Your task to perform on an android device: uninstall "Flipkart Online Shopping App" Image 0: 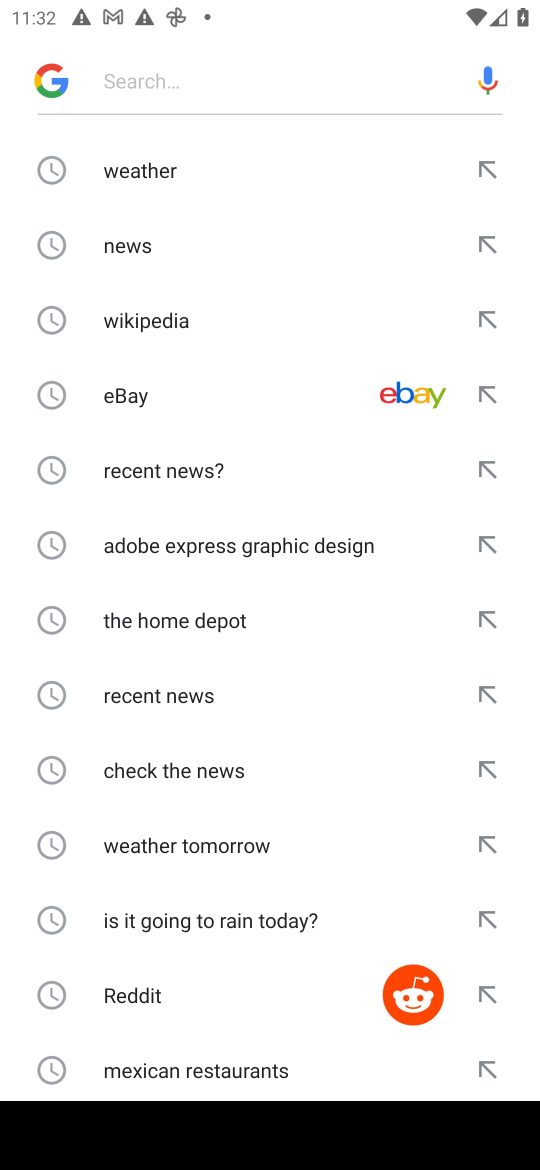
Step 0: press home button
Your task to perform on an android device: uninstall "Flipkart Online Shopping App" Image 1: 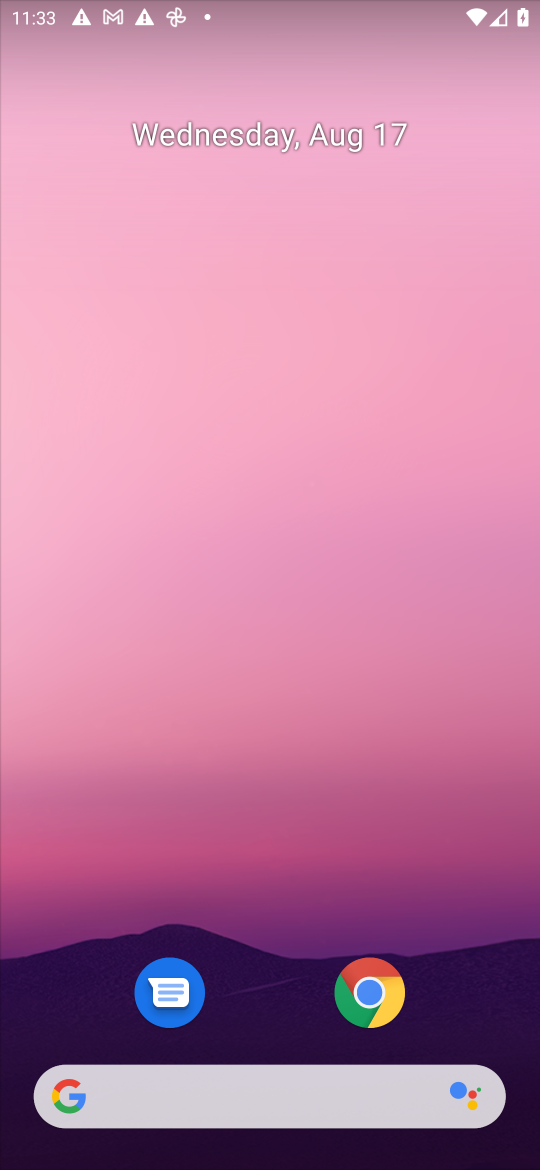
Step 1: drag from (461, 996) to (239, 51)
Your task to perform on an android device: uninstall "Flipkart Online Shopping App" Image 2: 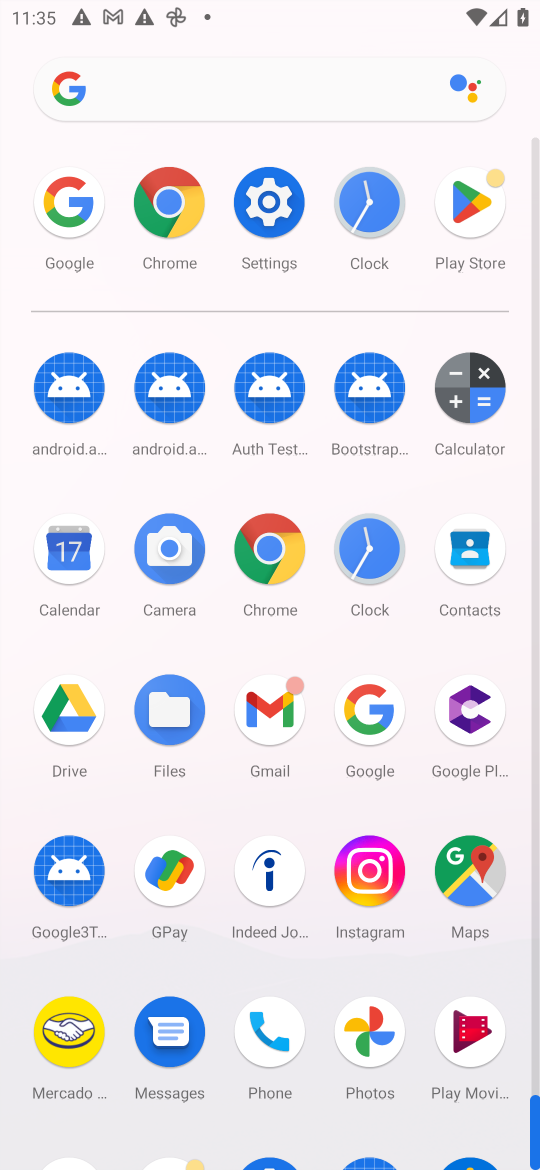
Step 2: click (477, 215)
Your task to perform on an android device: uninstall "Flipkart Online Shopping App" Image 3: 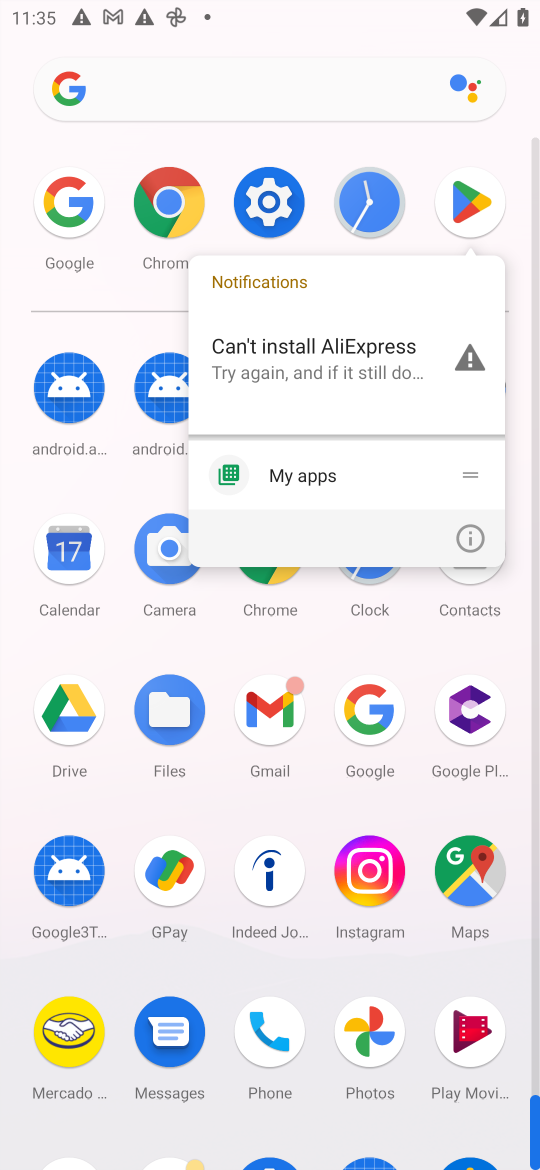
Step 3: click (477, 215)
Your task to perform on an android device: uninstall "Flipkart Online Shopping App" Image 4: 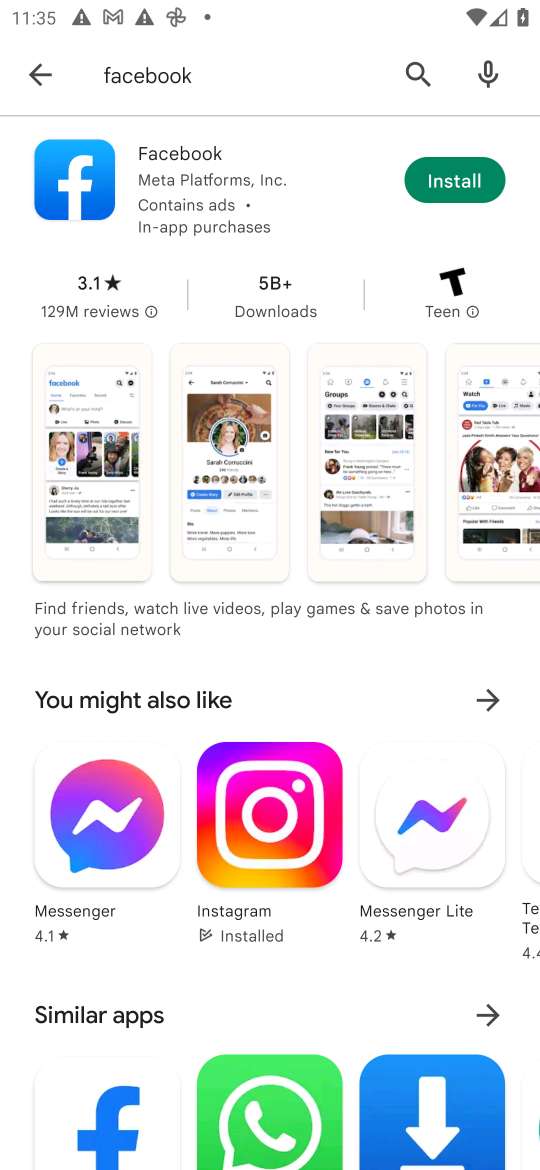
Step 4: press back button
Your task to perform on an android device: uninstall "Flipkart Online Shopping App" Image 5: 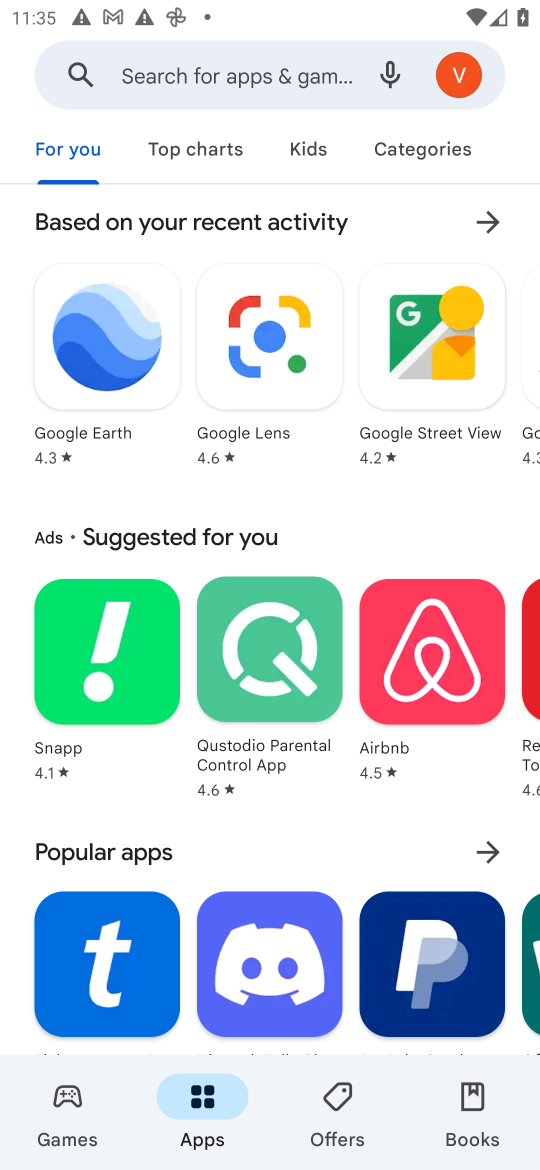
Step 5: click (177, 73)
Your task to perform on an android device: uninstall "Flipkart Online Shopping App" Image 6: 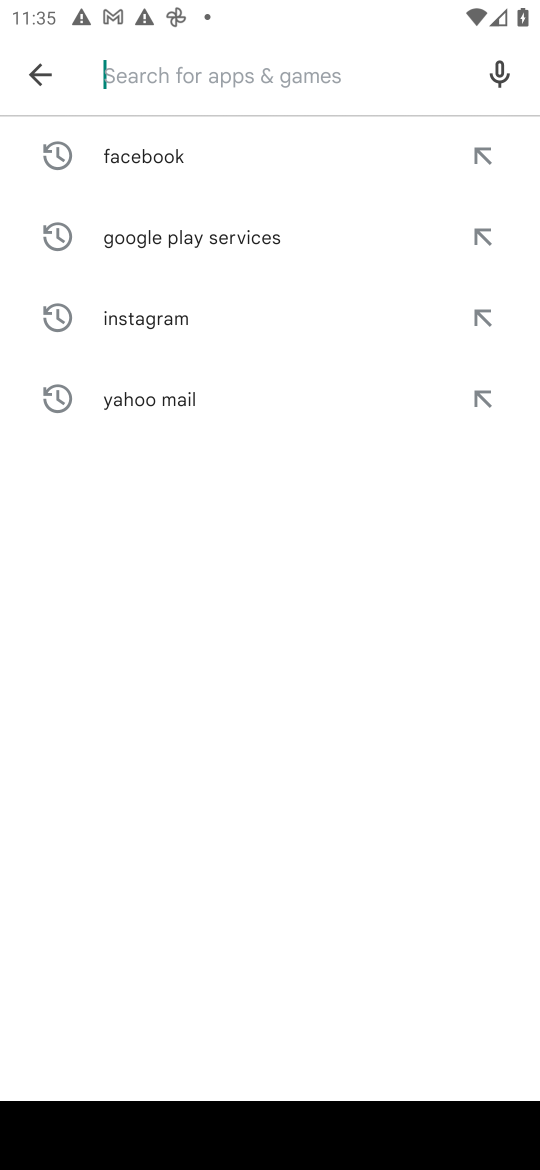
Step 6: type "Flipkart Online Shopping App"
Your task to perform on an android device: uninstall "Flipkart Online Shopping App" Image 7: 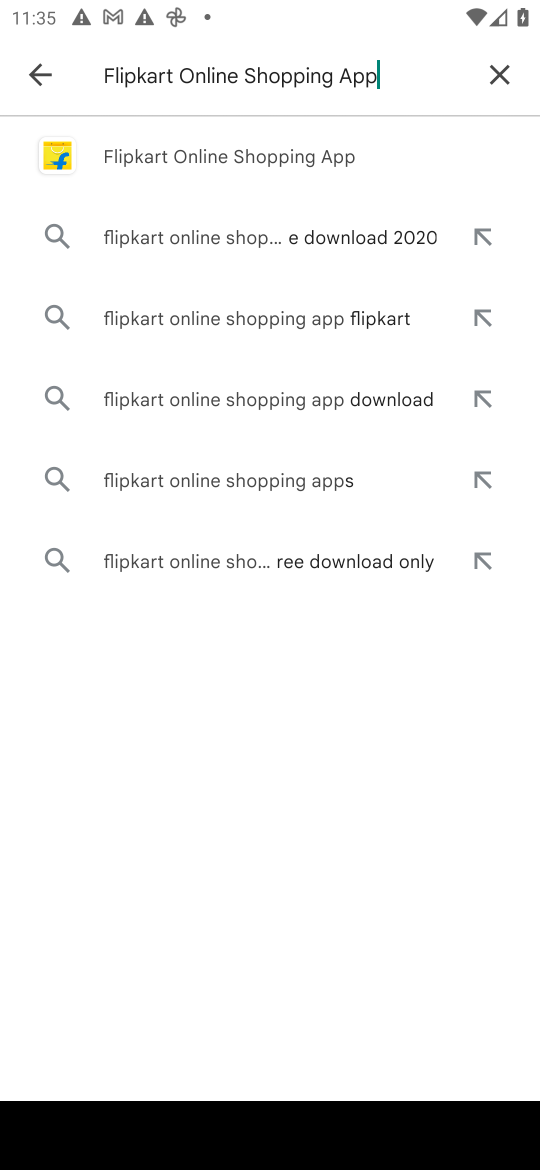
Step 7: click (134, 152)
Your task to perform on an android device: uninstall "Flipkart Online Shopping App" Image 8: 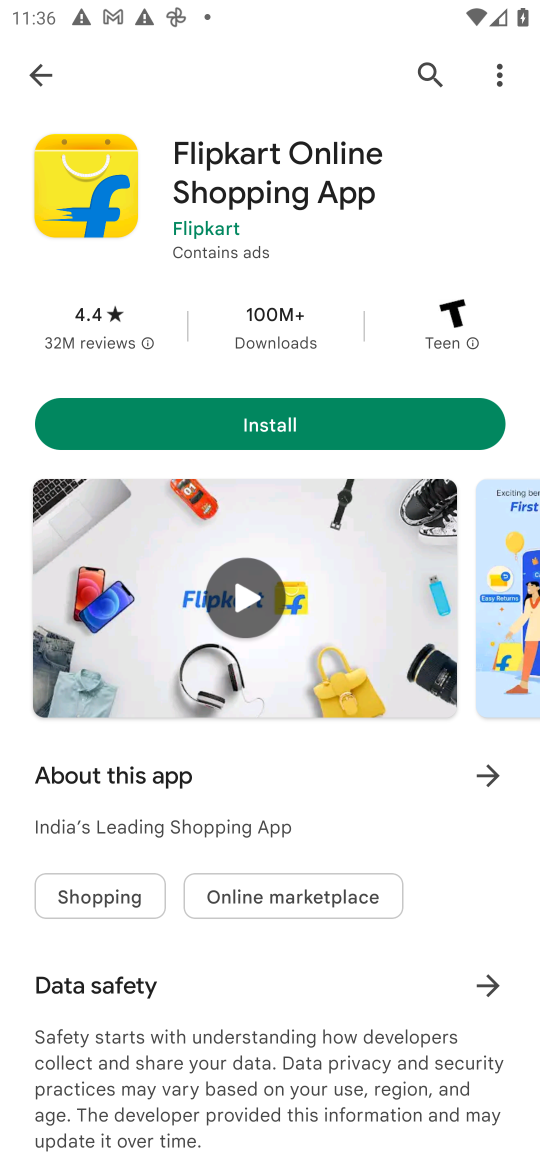
Step 8: task complete